Your task to perform on an android device: Go to Reddit.com Image 0: 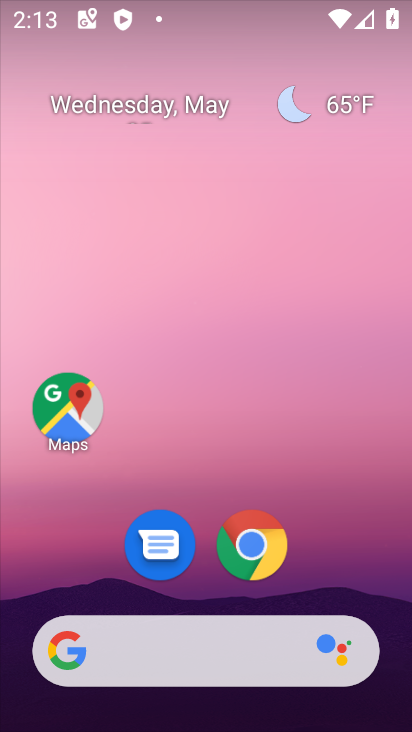
Step 0: click (256, 544)
Your task to perform on an android device: Go to Reddit.com Image 1: 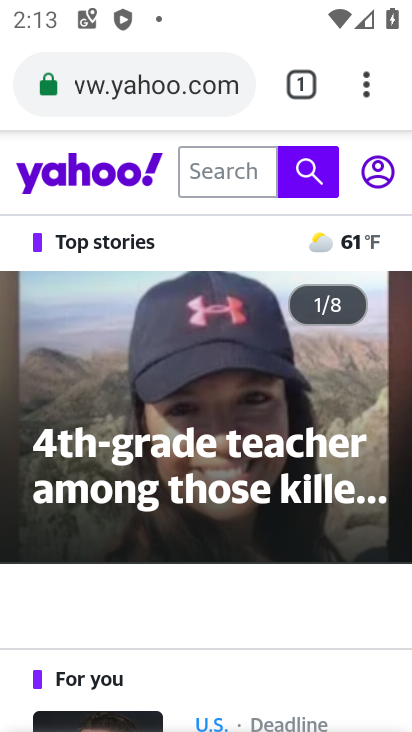
Step 1: click (201, 97)
Your task to perform on an android device: Go to Reddit.com Image 2: 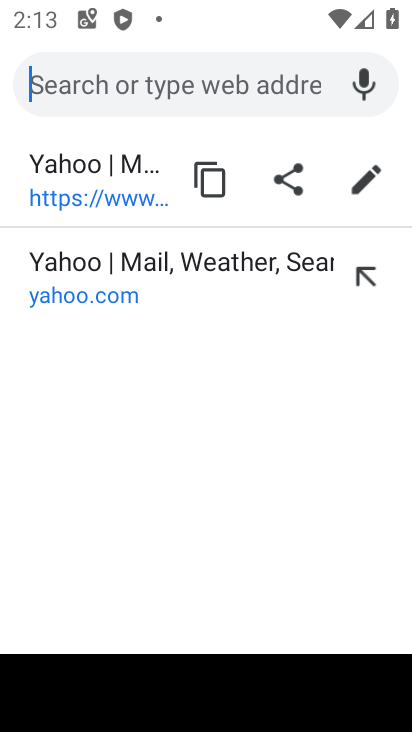
Step 2: type "Reddit.com"
Your task to perform on an android device: Go to Reddit.com Image 3: 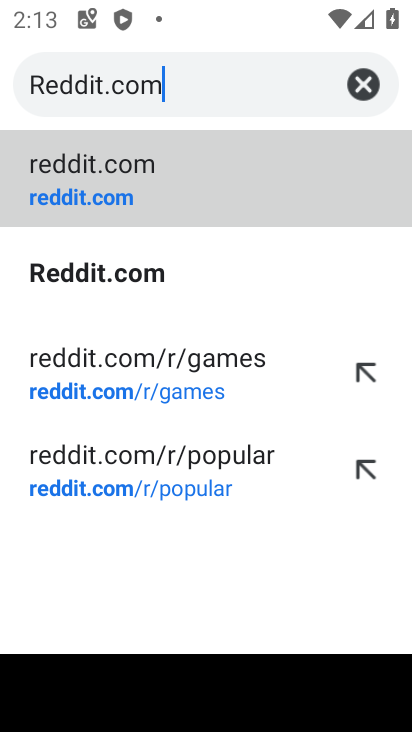
Step 3: click (162, 192)
Your task to perform on an android device: Go to Reddit.com Image 4: 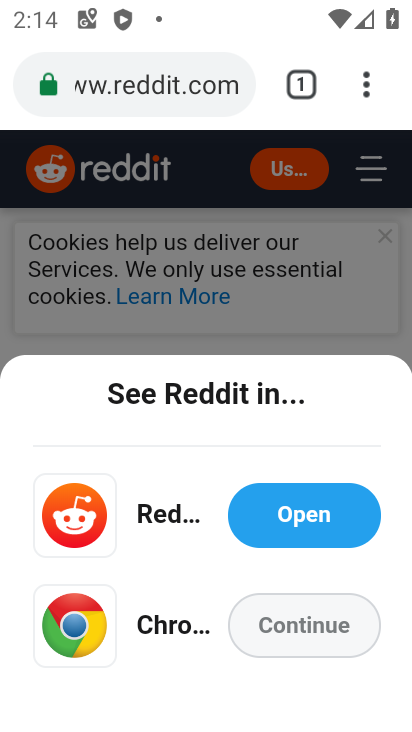
Step 4: task complete